Your task to perform on an android device: What is the recent news? Image 0: 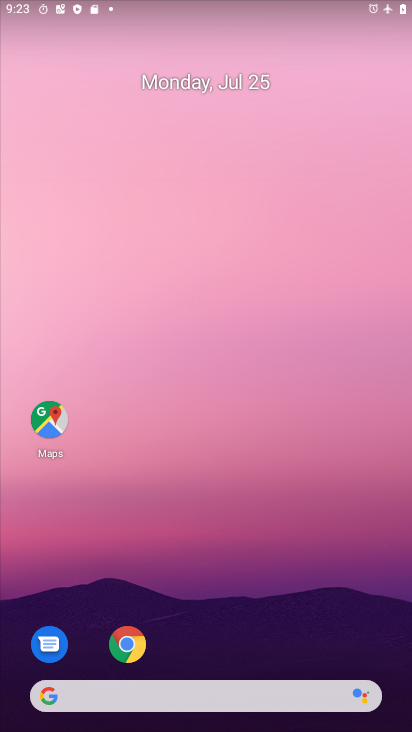
Step 0: drag from (245, 592) to (250, 158)
Your task to perform on an android device: What is the recent news? Image 1: 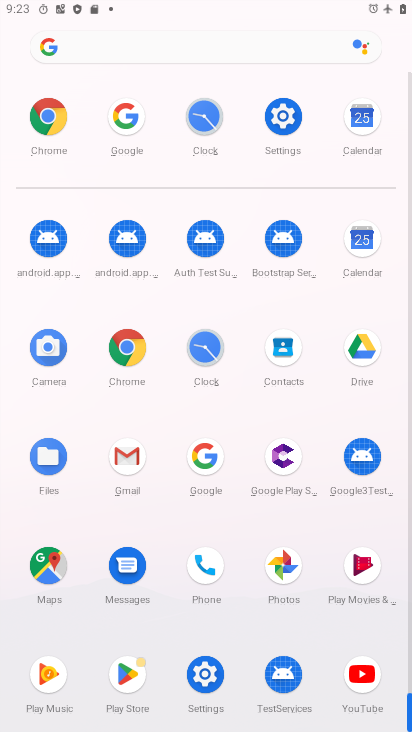
Step 1: click (198, 457)
Your task to perform on an android device: What is the recent news? Image 2: 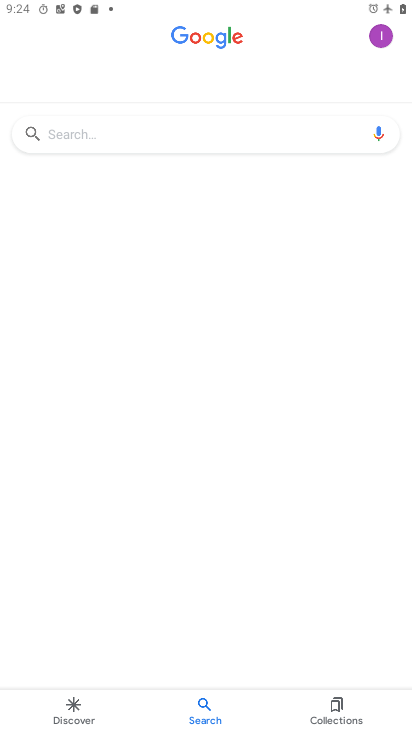
Step 2: click (79, 710)
Your task to perform on an android device: What is the recent news? Image 3: 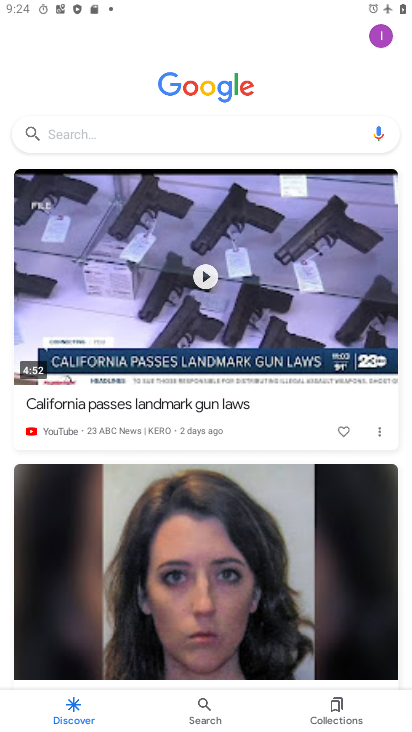
Step 3: task complete